Your task to perform on an android device: open app "Microsoft Excel" Image 0: 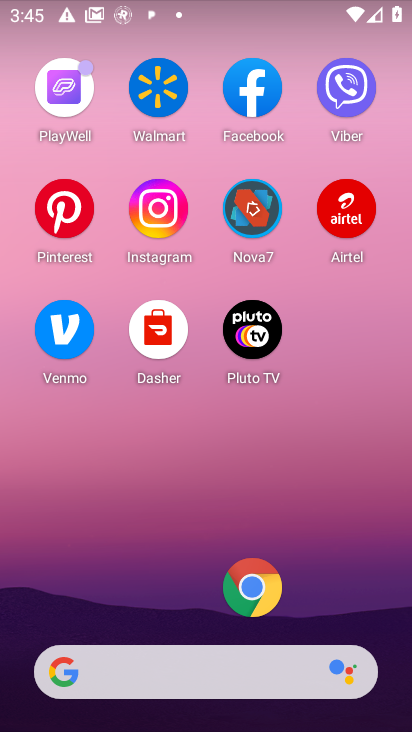
Step 0: drag from (175, 578) to (249, 78)
Your task to perform on an android device: open app "Microsoft Excel" Image 1: 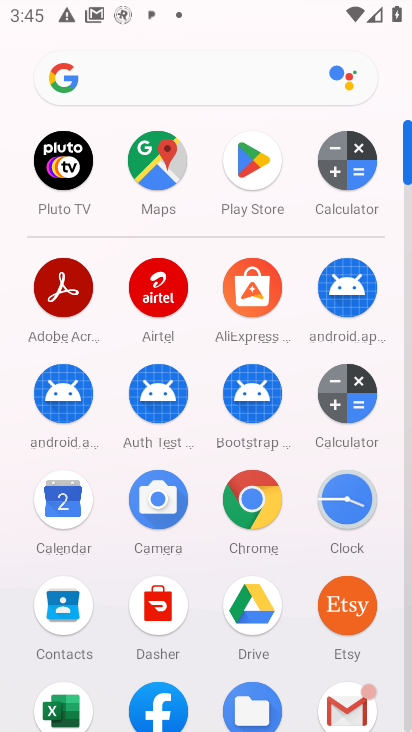
Step 1: click (269, 169)
Your task to perform on an android device: open app "Microsoft Excel" Image 2: 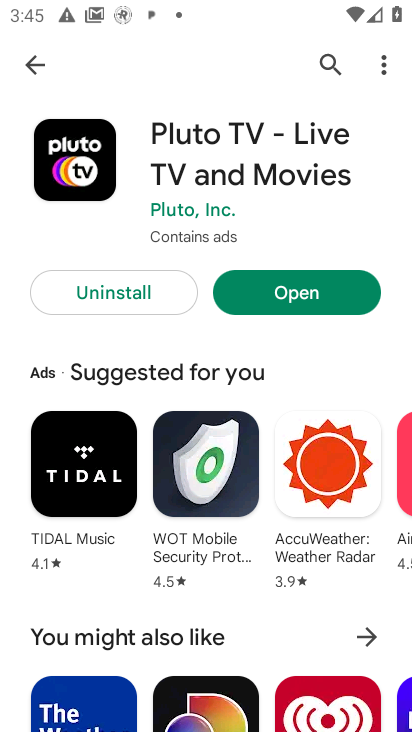
Step 2: click (315, 60)
Your task to perform on an android device: open app "Microsoft Excel" Image 3: 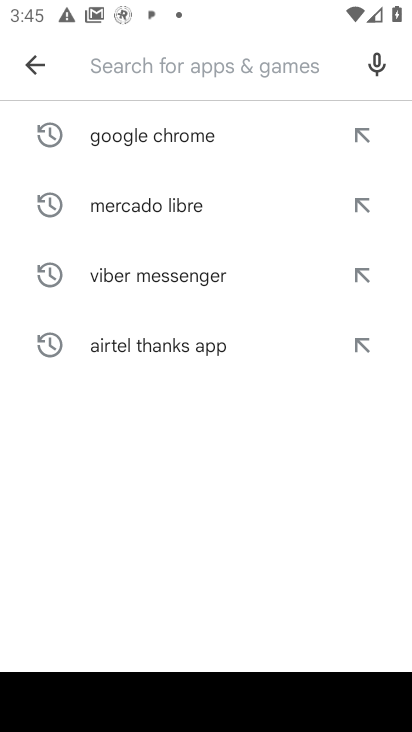
Step 3: type "Microsoft Excel"
Your task to perform on an android device: open app "Microsoft Excel" Image 4: 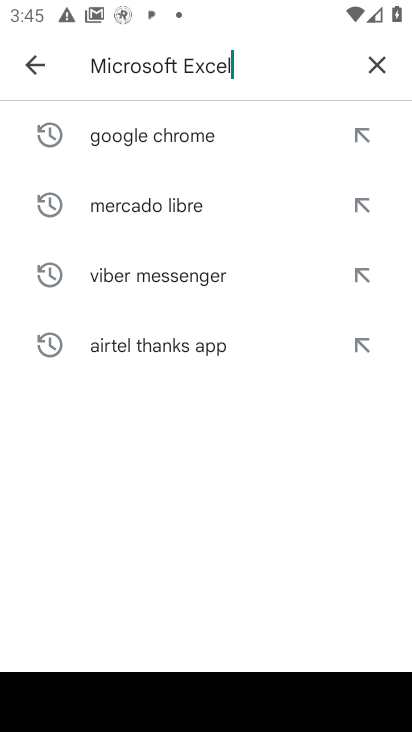
Step 4: type ""
Your task to perform on an android device: open app "Microsoft Excel" Image 5: 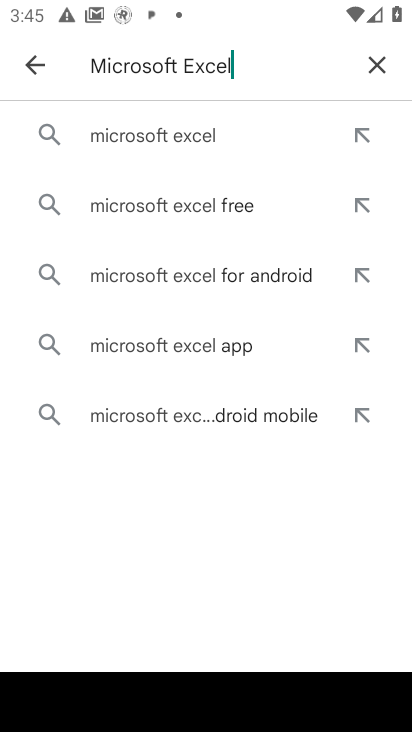
Step 5: click (163, 116)
Your task to perform on an android device: open app "Microsoft Excel" Image 6: 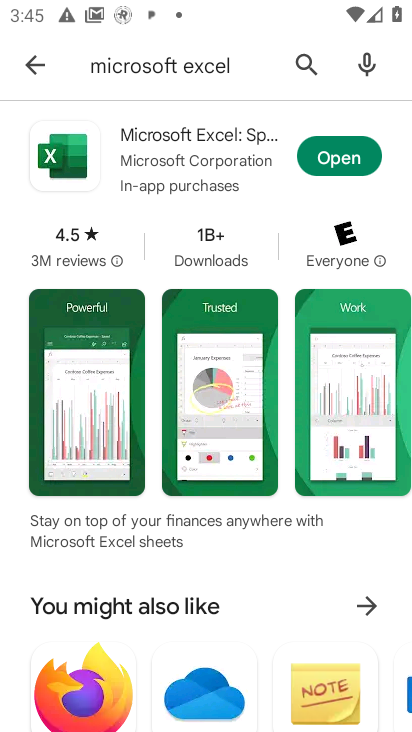
Step 6: click (320, 150)
Your task to perform on an android device: open app "Microsoft Excel" Image 7: 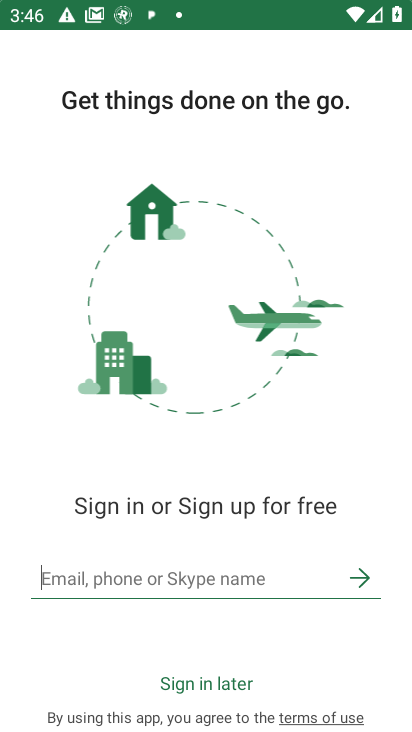
Step 7: task complete